Your task to perform on an android device: Open Google Maps and go to "Timeline" Image 0: 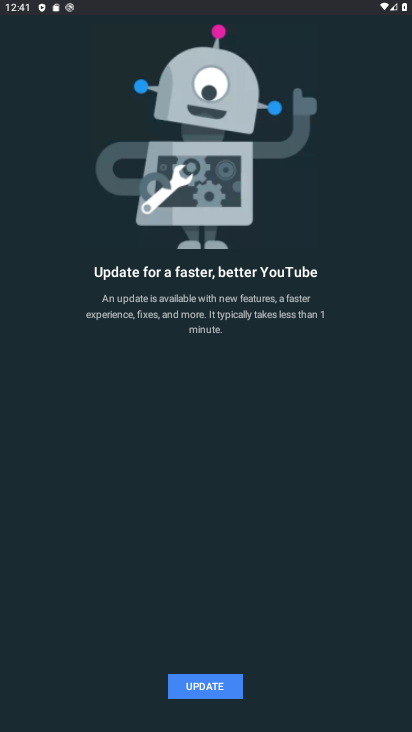
Step 0: press home button
Your task to perform on an android device: Open Google Maps and go to "Timeline" Image 1: 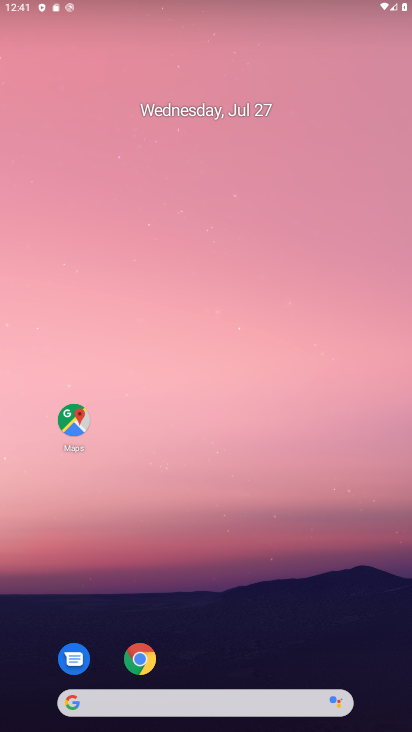
Step 1: drag from (334, 431) to (251, 69)
Your task to perform on an android device: Open Google Maps and go to "Timeline" Image 2: 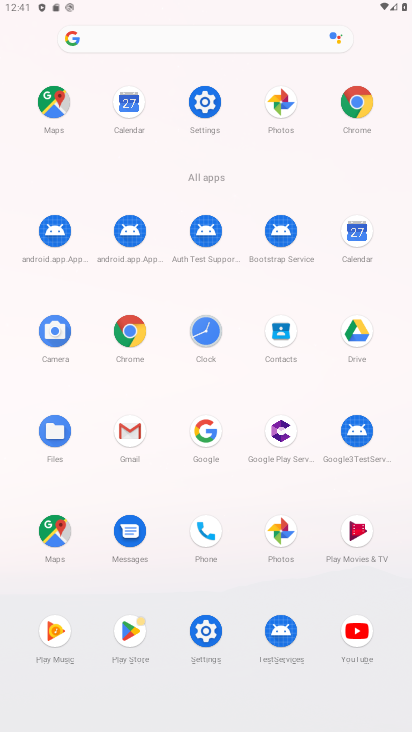
Step 2: click (55, 105)
Your task to perform on an android device: Open Google Maps and go to "Timeline" Image 3: 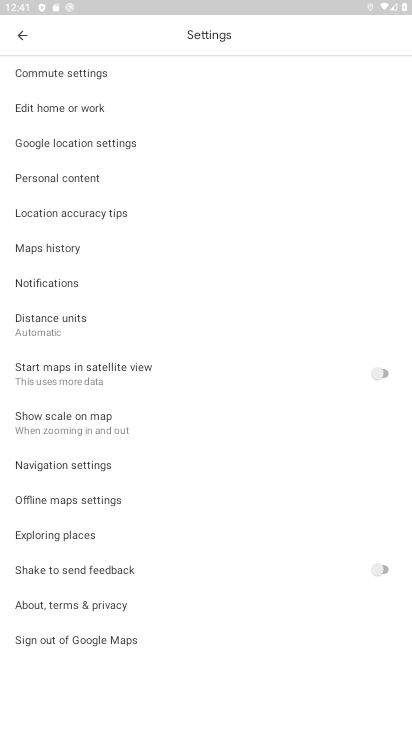
Step 3: click (17, 31)
Your task to perform on an android device: Open Google Maps and go to "Timeline" Image 4: 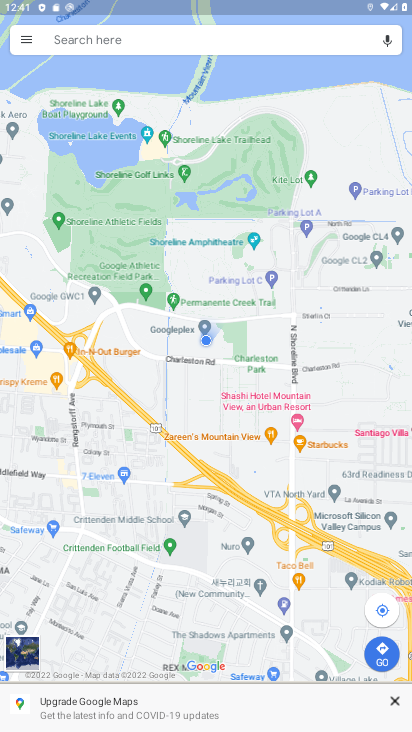
Step 4: click (31, 45)
Your task to perform on an android device: Open Google Maps and go to "Timeline" Image 5: 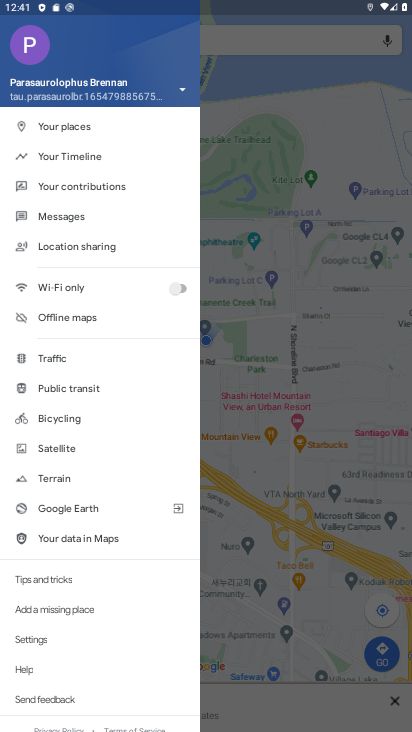
Step 5: click (95, 156)
Your task to perform on an android device: Open Google Maps and go to "Timeline" Image 6: 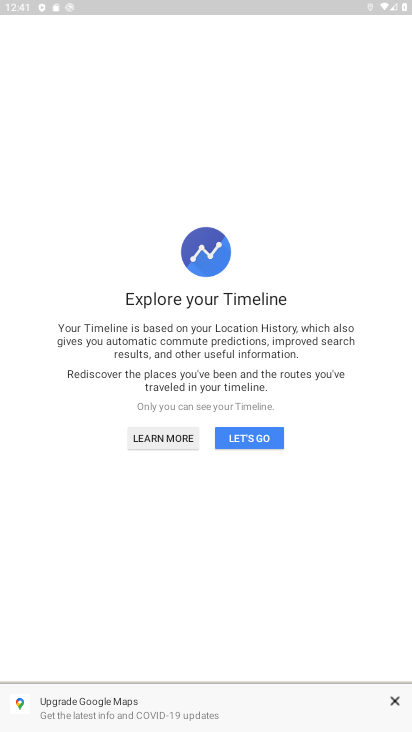
Step 6: click (258, 438)
Your task to perform on an android device: Open Google Maps and go to "Timeline" Image 7: 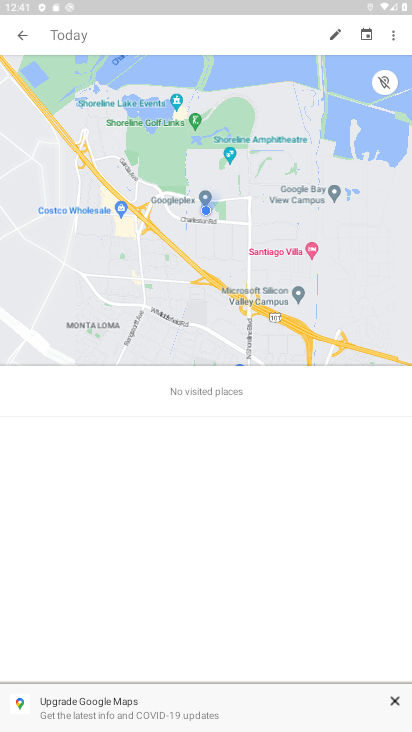
Step 7: task complete